Your task to perform on an android device: clear all cookies in the chrome app Image 0: 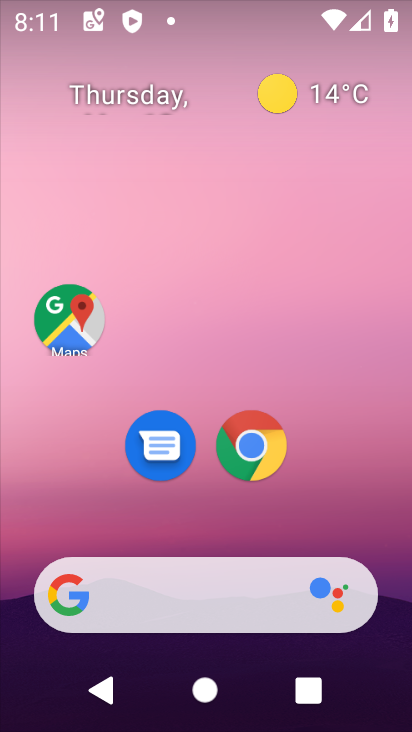
Step 0: click (262, 427)
Your task to perform on an android device: clear all cookies in the chrome app Image 1: 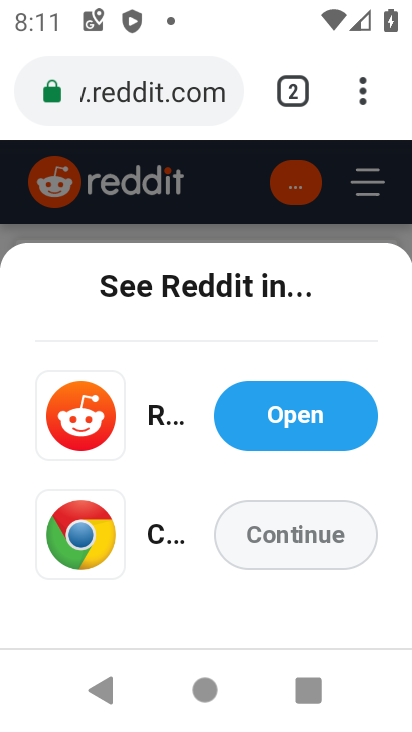
Step 1: click (366, 99)
Your task to perform on an android device: clear all cookies in the chrome app Image 2: 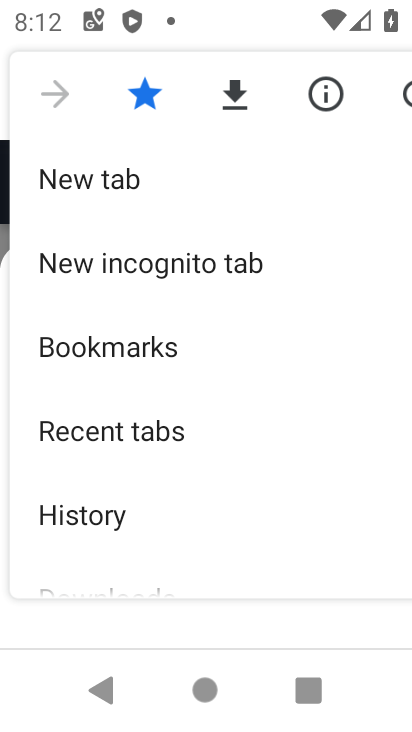
Step 2: drag from (138, 541) to (158, 226)
Your task to perform on an android device: clear all cookies in the chrome app Image 3: 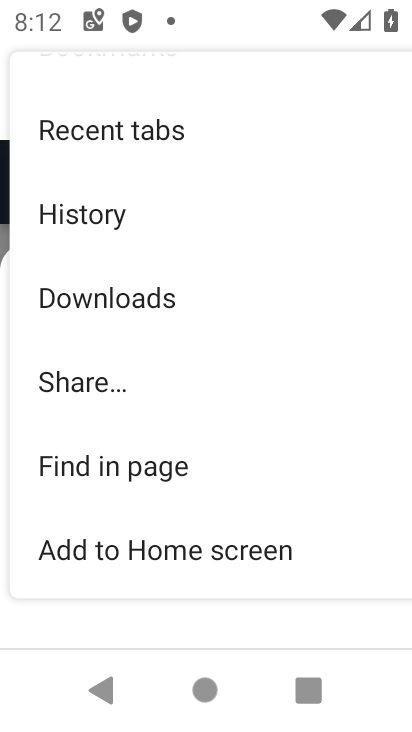
Step 3: click (101, 204)
Your task to perform on an android device: clear all cookies in the chrome app Image 4: 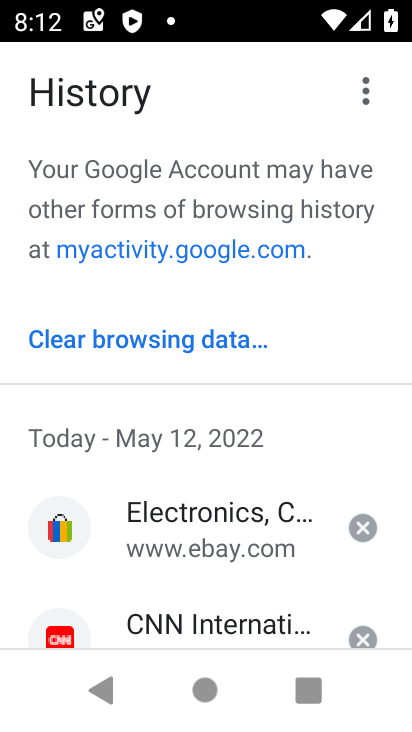
Step 4: click (158, 338)
Your task to perform on an android device: clear all cookies in the chrome app Image 5: 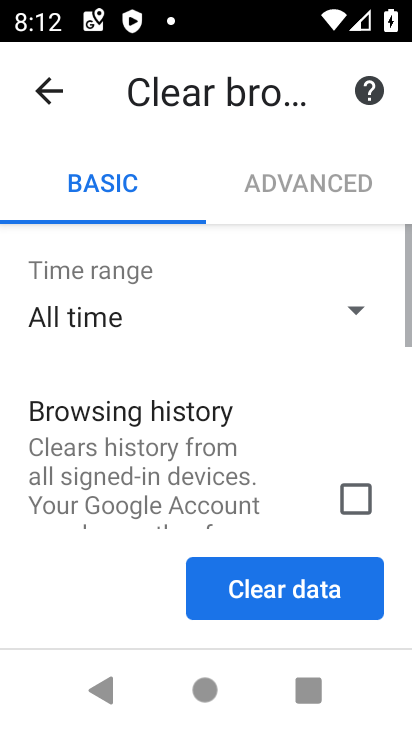
Step 5: drag from (265, 480) to (283, 204)
Your task to perform on an android device: clear all cookies in the chrome app Image 6: 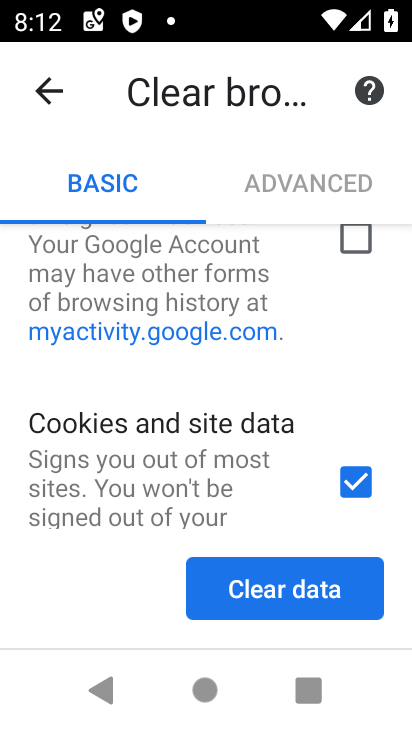
Step 6: drag from (267, 485) to (287, 268)
Your task to perform on an android device: clear all cookies in the chrome app Image 7: 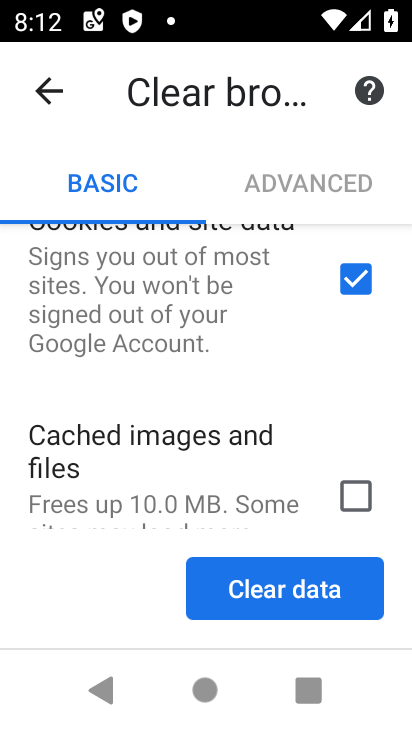
Step 7: click (297, 591)
Your task to perform on an android device: clear all cookies in the chrome app Image 8: 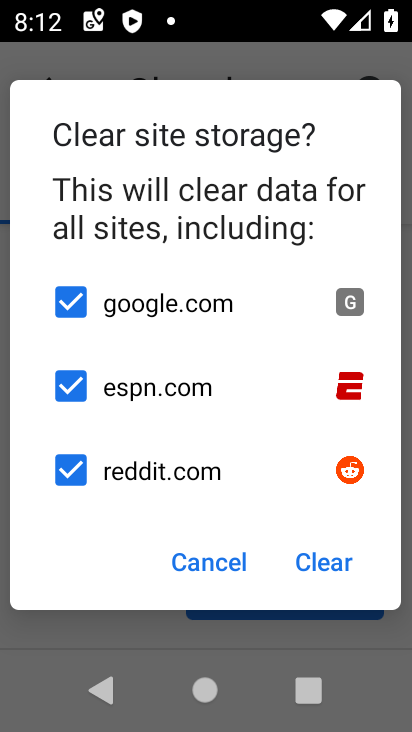
Step 8: click (326, 561)
Your task to perform on an android device: clear all cookies in the chrome app Image 9: 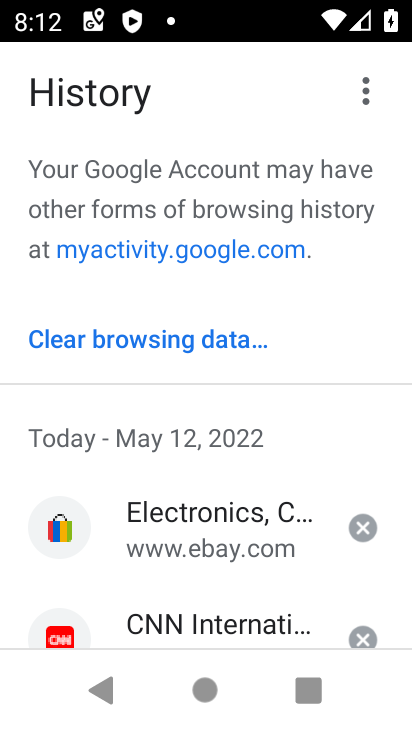
Step 9: task complete